Your task to perform on an android device: What's the weather today? Image 0: 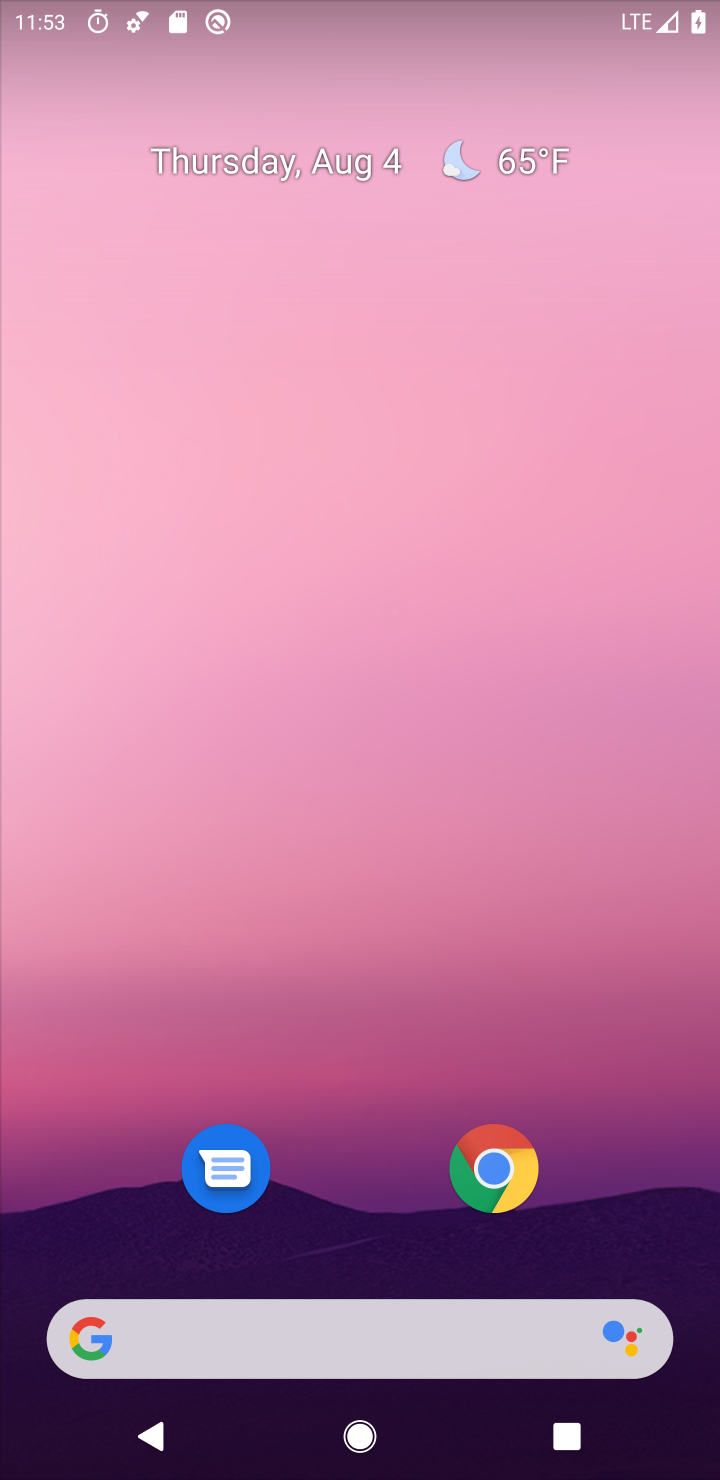
Step 0: click (293, 1353)
Your task to perform on an android device: What's the weather today? Image 1: 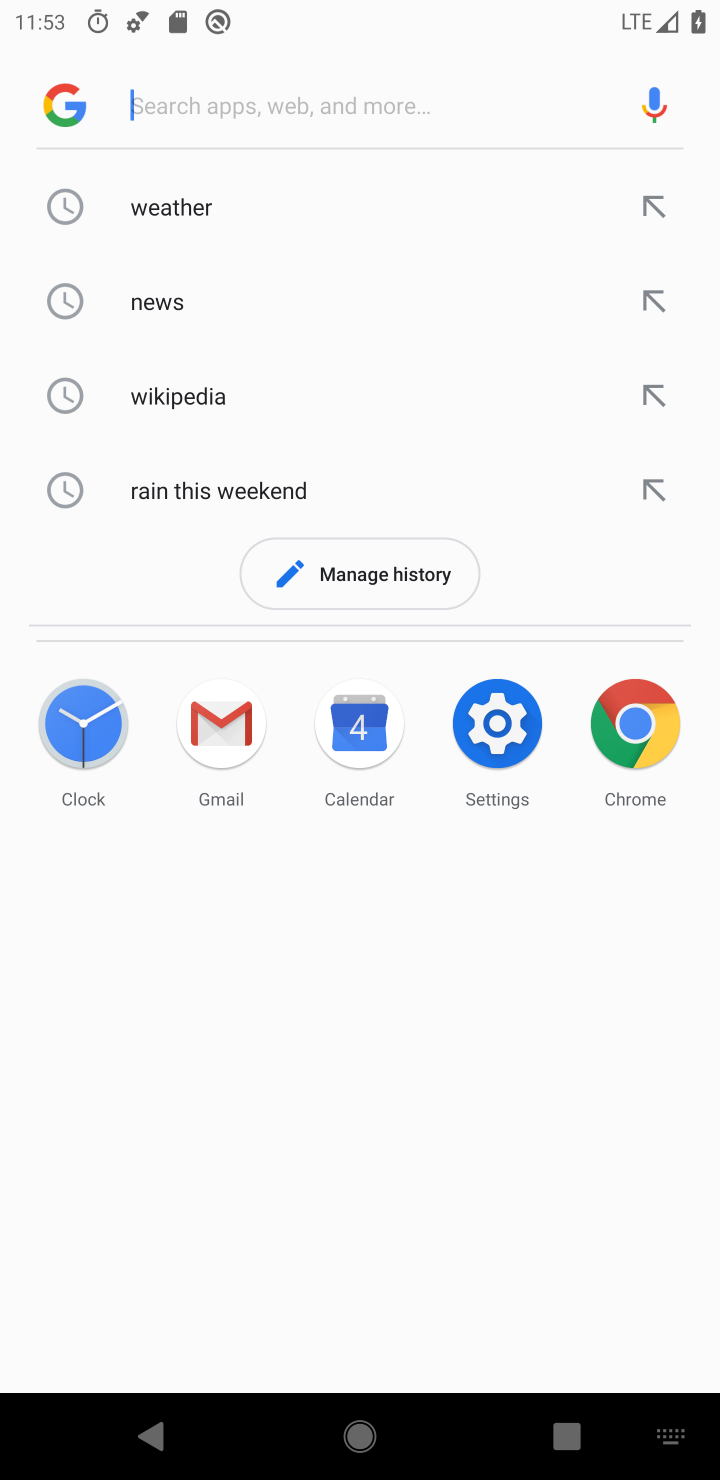
Step 1: click (134, 192)
Your task to perform on an android device: What's the weather today? Image 2: 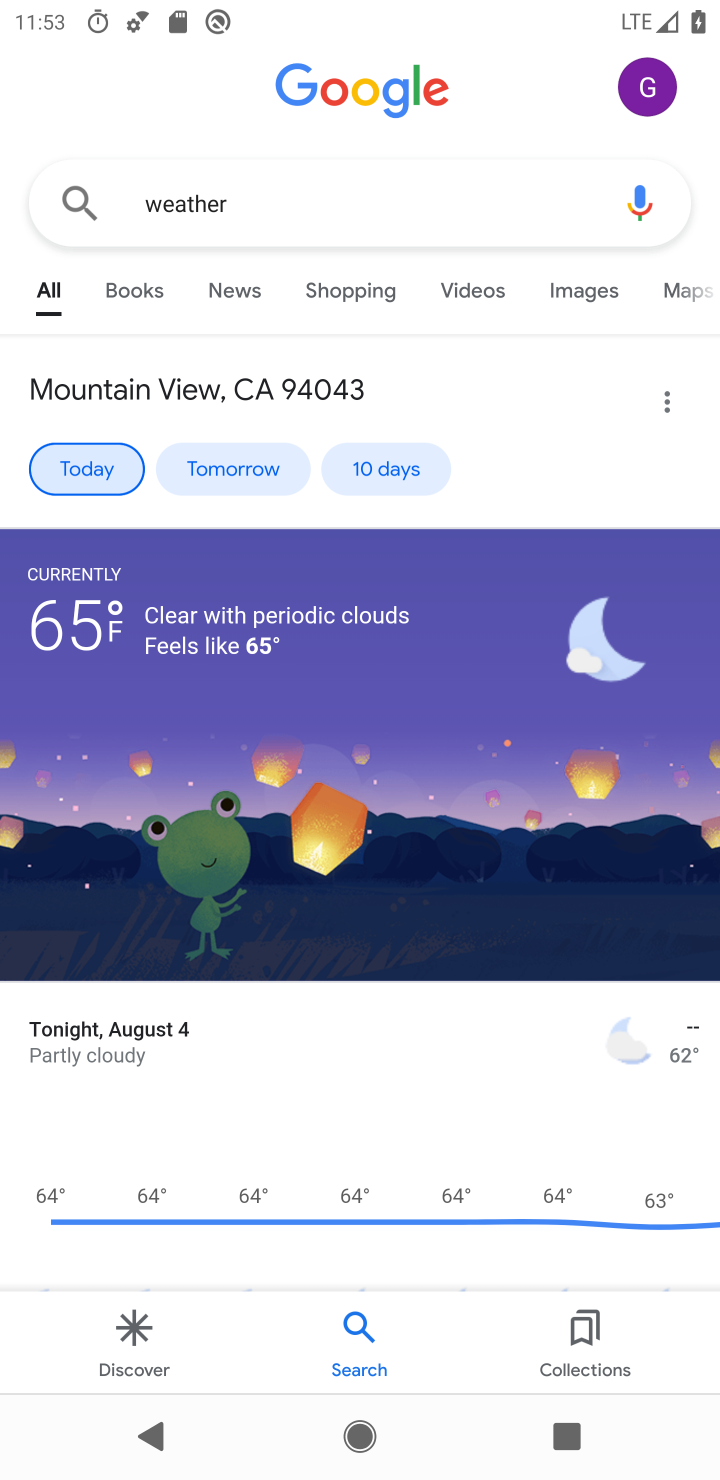
Step 2: task complete